Your task to perform on an android device: Is it going to rain this weekend? Image 0: 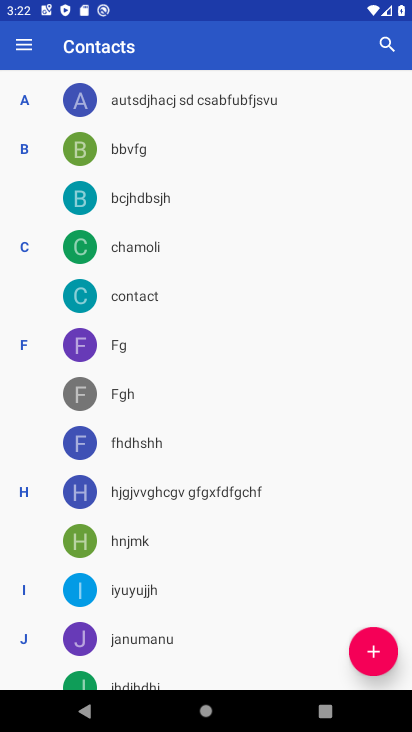
Step 0: press home button
Your task to perform on an android device: Is it going to rain this weekend? Image 1: 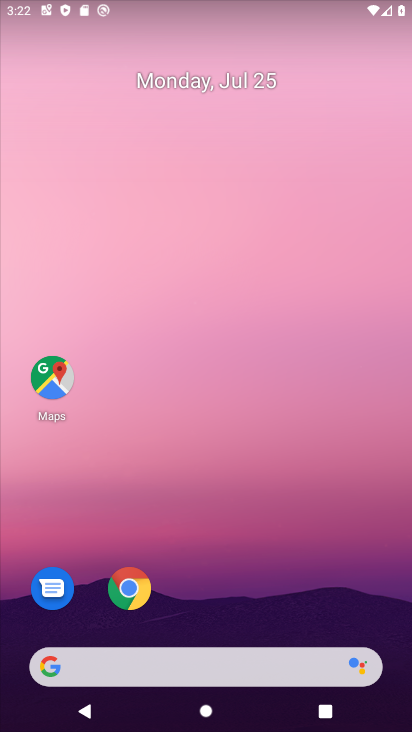
Step 1: drag from (320, 502) to (273, 62)
Your task to perform on an android device: Is it going to rain this weekend? Image 2: 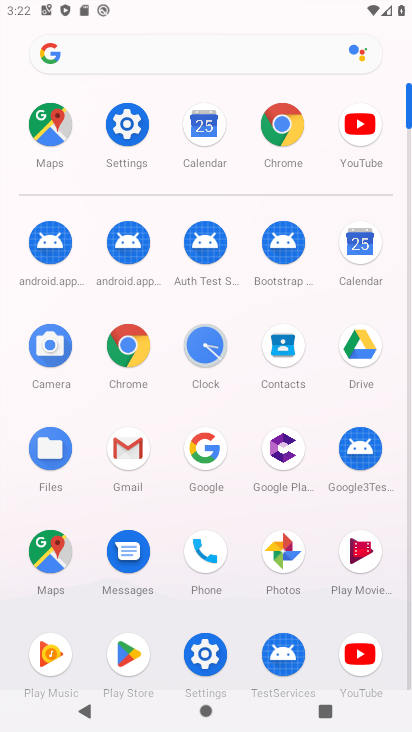
Step 2: click (280, 131)
Your task to perform on an android device: Is it going to rain this weekend? Image 3: 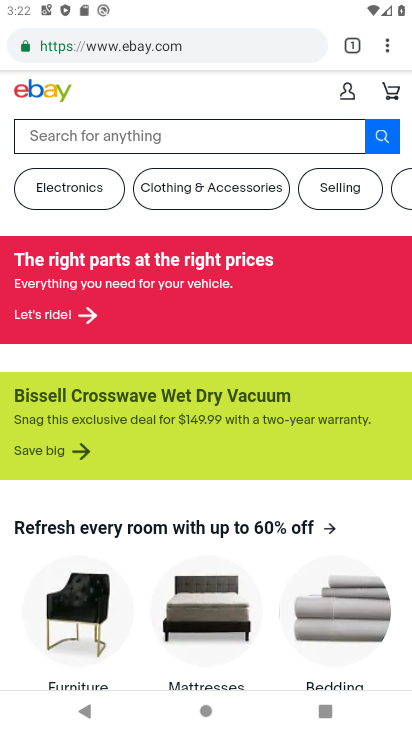
Step 3: click (248, 50)
Your task to perform on an android device: Is it going to rain this weekend? Image 4: 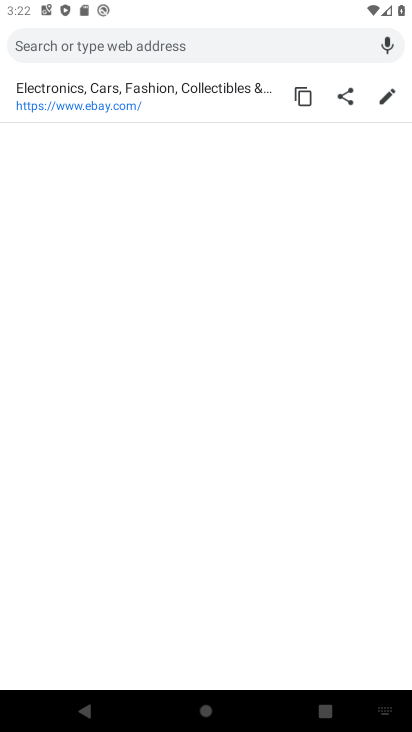
Step 4: type "weather"
Your task to perform on an android device: Is it going to rain this weekend? Image 5: 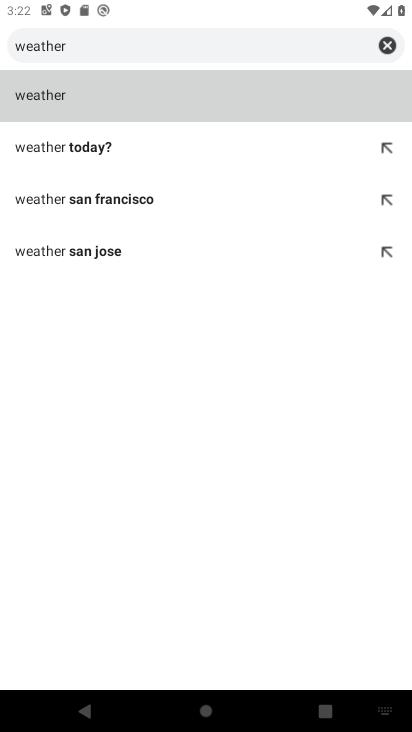
Step 5: click (40, 106)
Your task to perform on an android device: Is it going to rain this weekend? Image 6: 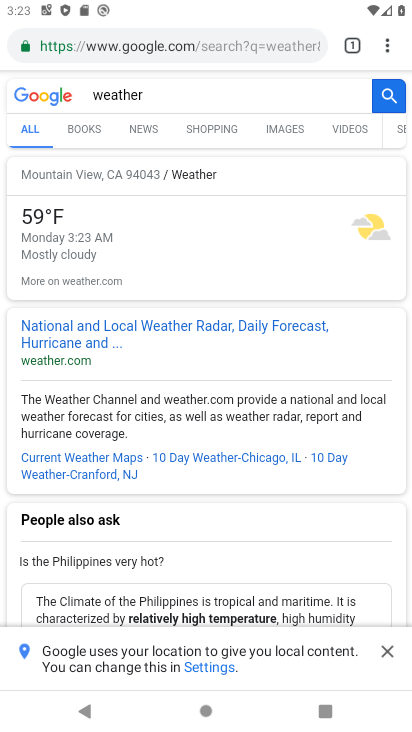
Step 6: click (244, 95)
Your task to perform on an android device: Is it going to rain this weekend? Image 7: 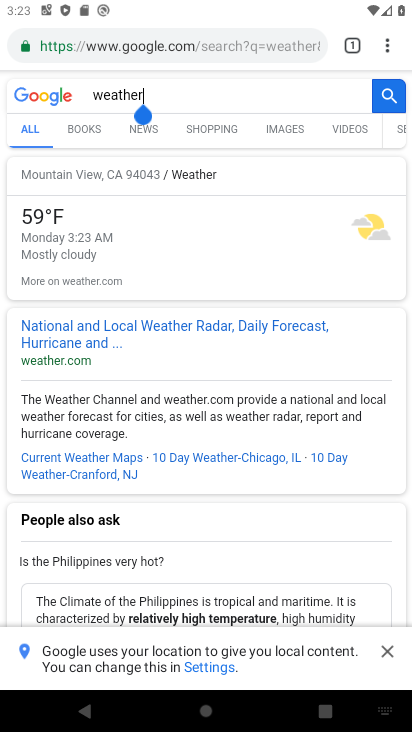
Step 7: type "this weekend"
Your task to perform on an android device: Is it going to rain this weekend? Image 8: 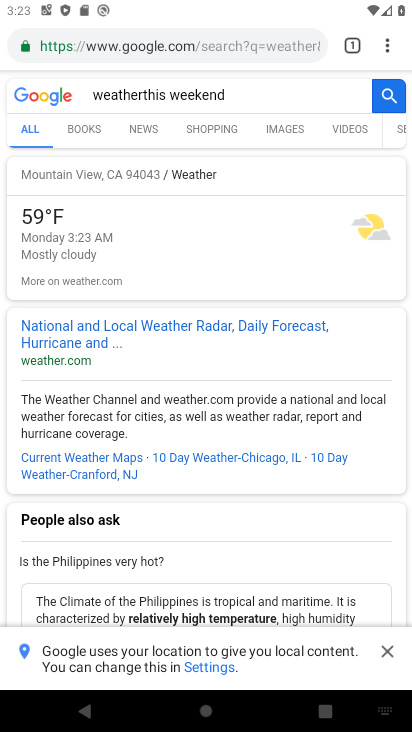
Step 8: click (396, 95)
Your task to perform on an android device: Is it going to rain this weekend? Image 9: 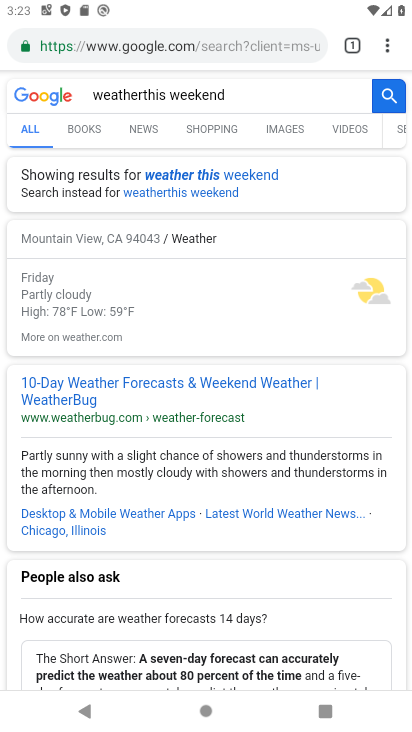
Step 9: task complete